Your task to perform on an android device: Go to eBay Image 0: 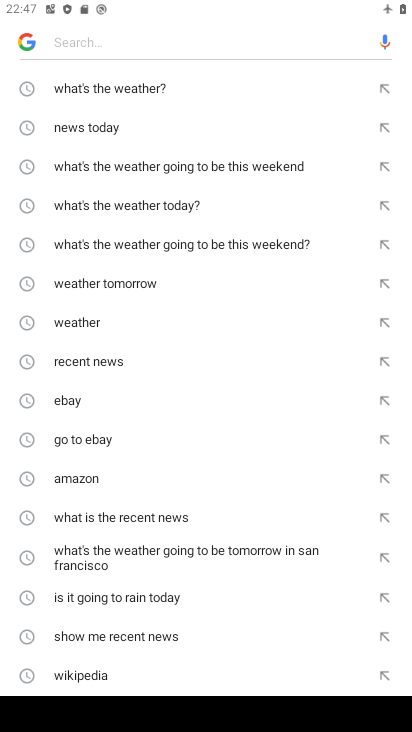
Step 0: click (76, 404)
Your task to perform on an android device: Go to eBay Image 1: 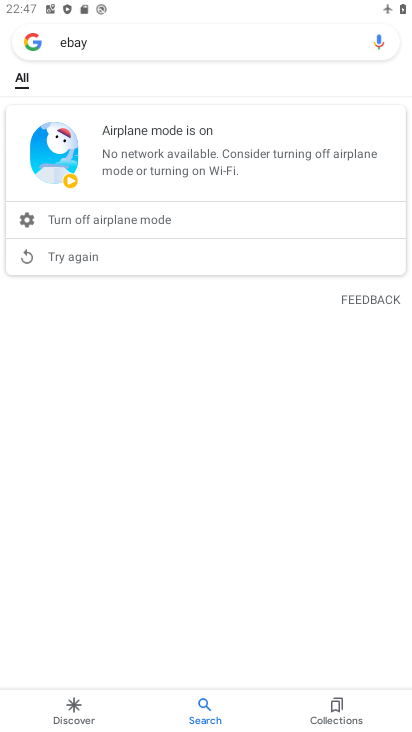
Step 1: task complete